Your task to perform on an android device: Go to notification settings Image 0: 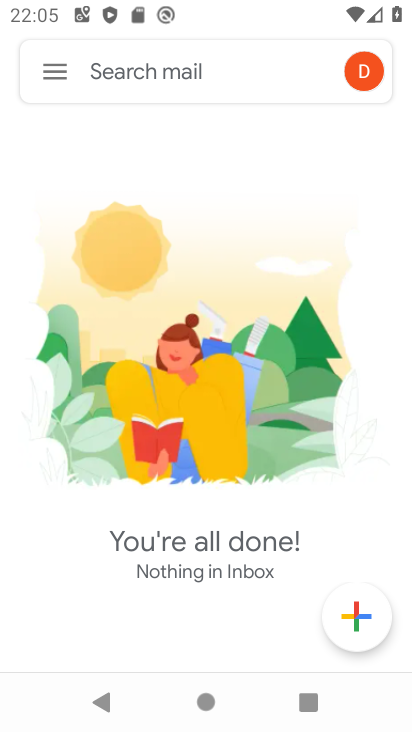
Step 0: press home button
Your task to perform on an android device: Go to notification settings Image 1: 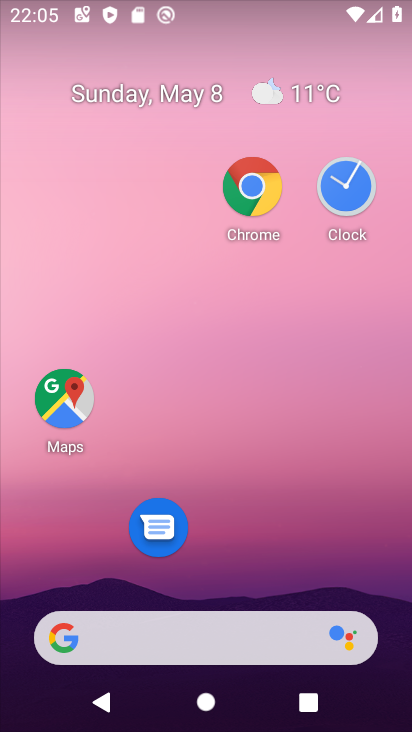
Step 1: drag from (319, 532) to (265, 35)
Your task to perform on an android device: Go to notification settings Image 2: 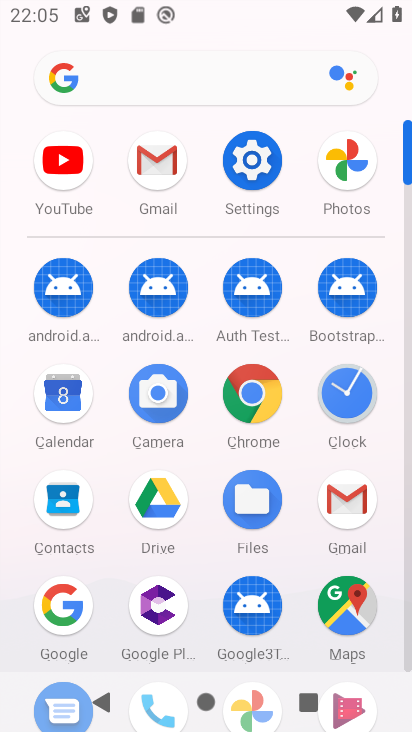
Step 2: click (246, 158)
Your task to perform on an android device: Go to notification settings Image 3: 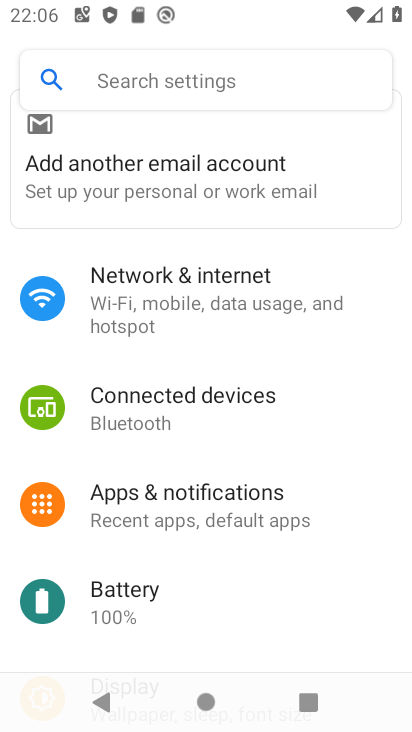
Step 3: drag from (248, 466) to (243, 143)
Your task to perform on an android device: Go to notification settings Image 4: 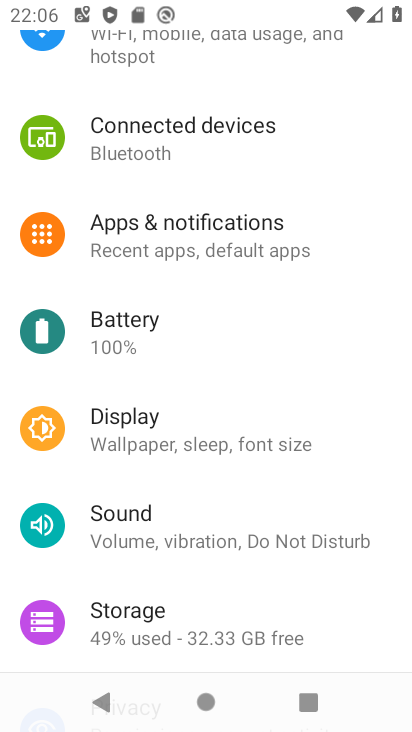
Step 4: drag from (208, 498) to (188, 274)
Your task to perform on an android device: Go to notification settings Image 5: 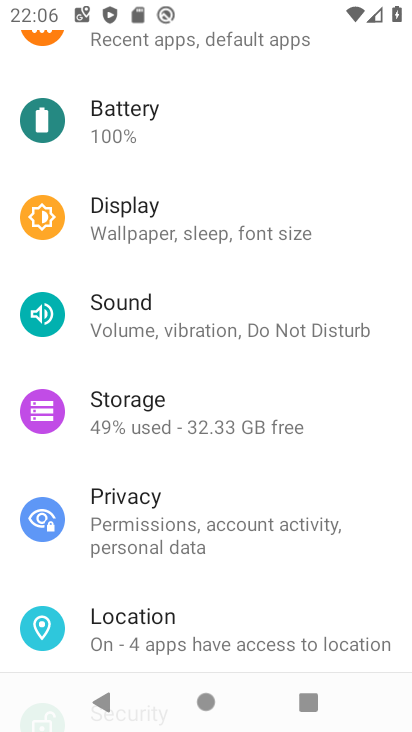
Step 5: drag from (202, 227) to (196, 516)
Your task to perform on an android device: Go to notification settings Image 6: 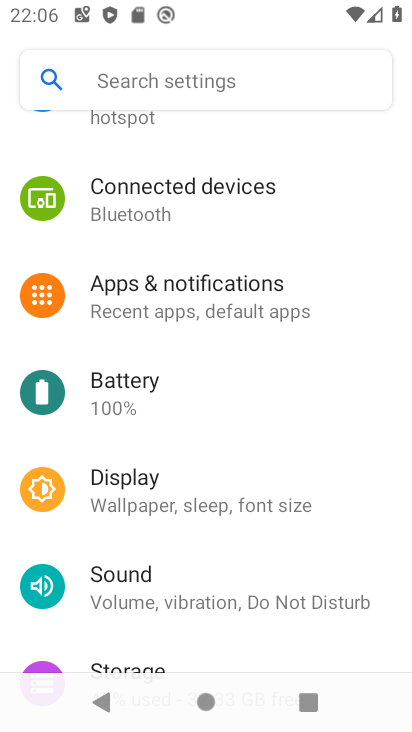
Step 6: drag from (214, 228) to (202, 489)
Your task to perform on an android device: Go to notification settings Image 7: 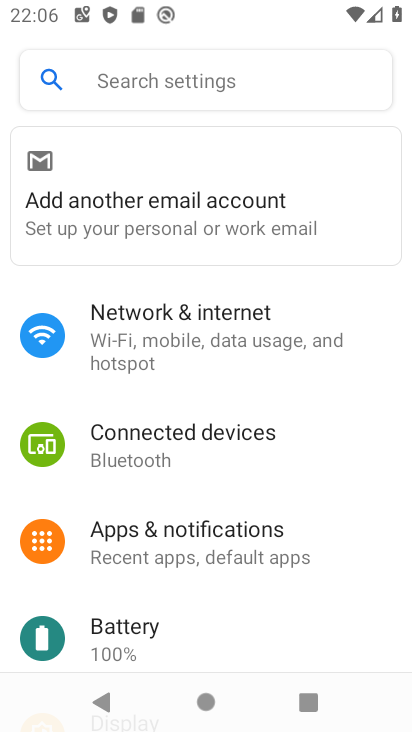
Step 7: click (154, 545)
Your task to perform on an android device: Go to notification settings Image 8: 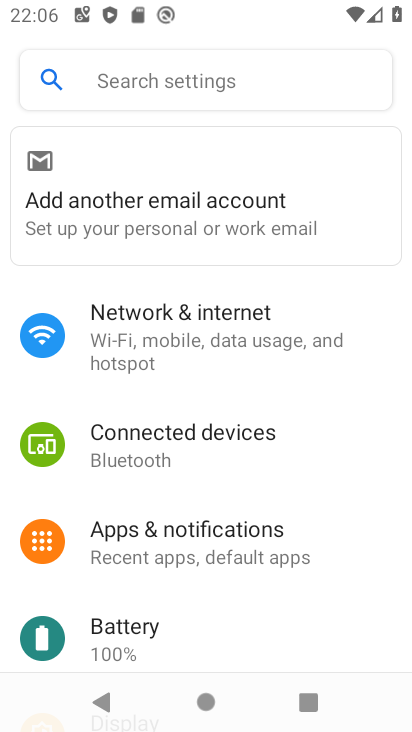
Step 8: task complete